Your task to perform on an android device: turn on javascript in the chrome app Image 0: 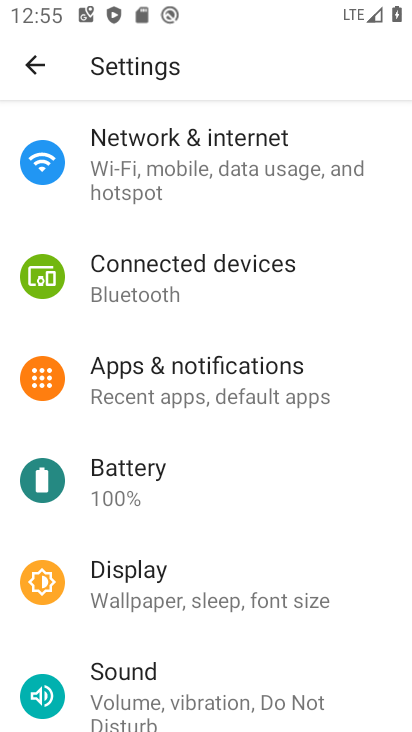
Step 0: press back button
Your task to perform on an android device: turn on javascript in the chrome app Image 1: 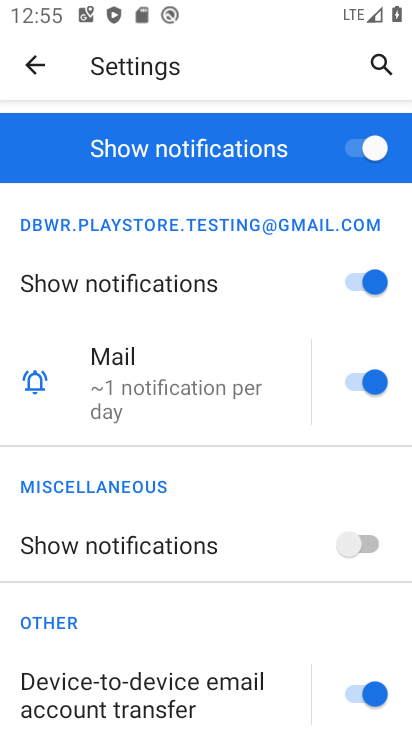
Step 1: press home button
Your task to perform on an android device: turn on javascript in the chrome app Image 2: 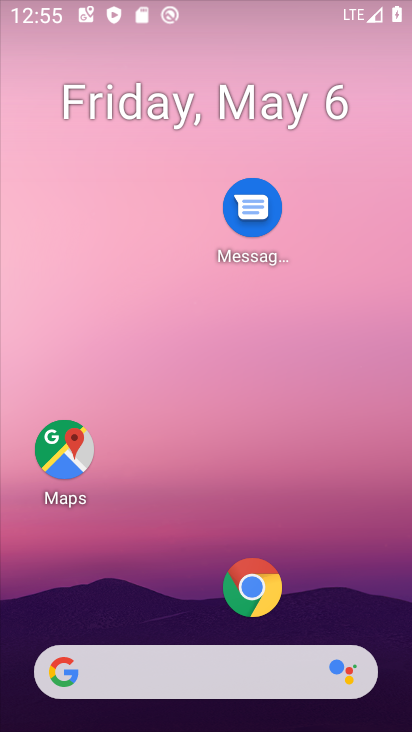
Step 2: drag from (106, 615) to (135, 685)
Your task to perform on an android device: turn on javascript in the chrome app Image 3: 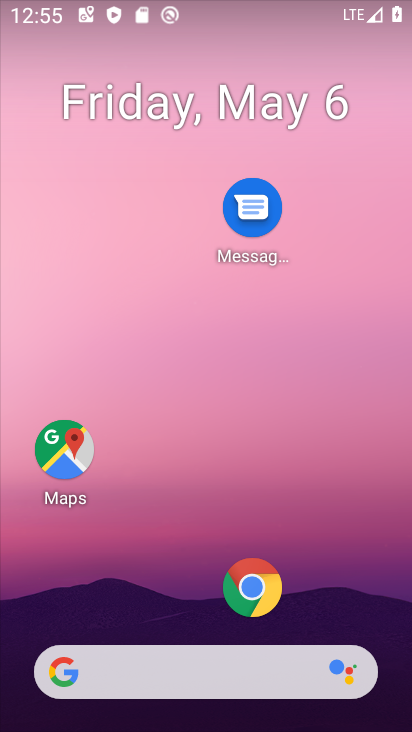
Step 3: click (255, 580)
Your task to perform on an android device: turn on javascript in the chrome app Image 4: 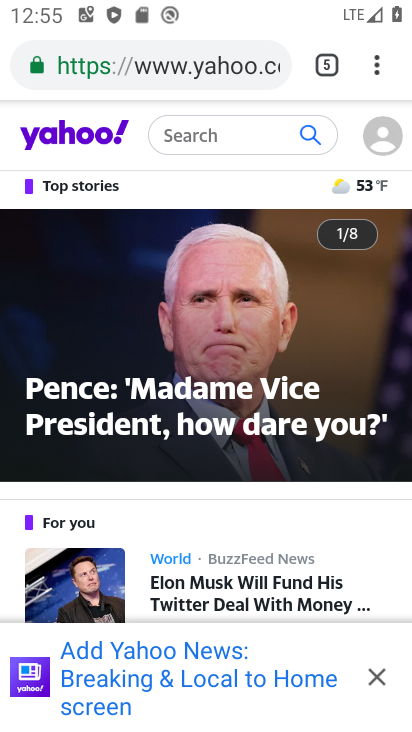
Step 4: drag from (378, 66) to (163, 625)
Your task to perform on an android device: turn on javascript in the chrome app Image 5: 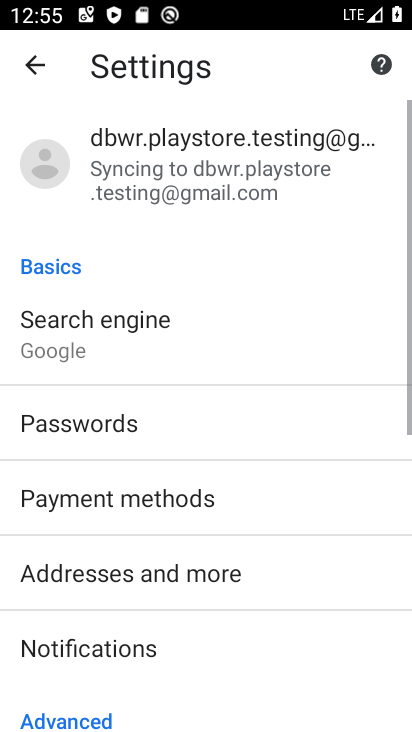
Step 5: drag from (164, 614) to (283, 61)
Your task to perform on an android device: turn on javascript in the chrome app Image 6: 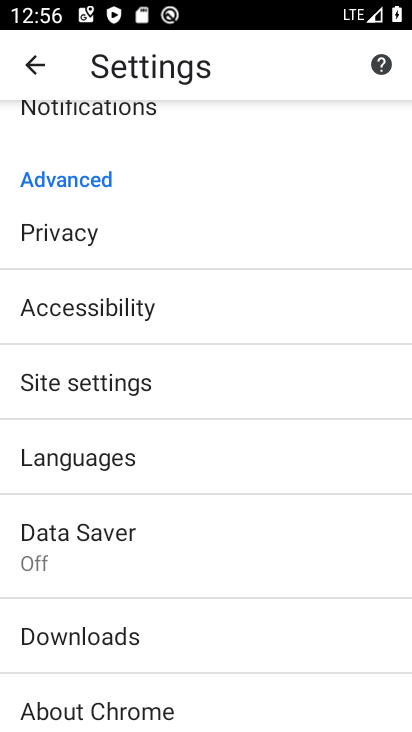
Step 6: click (98, 381)
Your task to perform on an android device: turn on javascript in the chrome app Image 7: 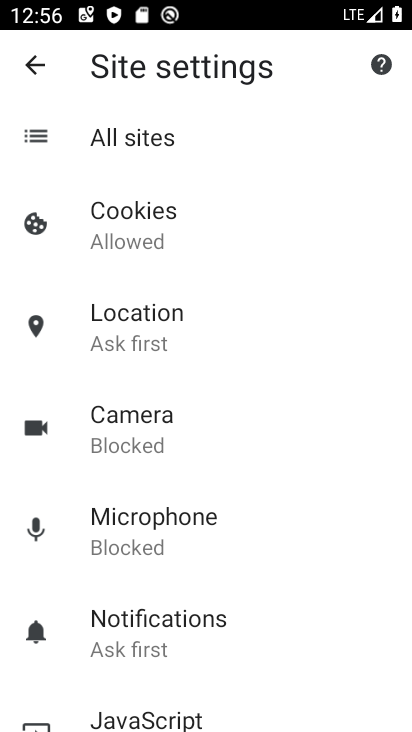
Step 7: click (148, 711)
Your task to perform on an android device: turn on javascript in the chrome app Image 8: 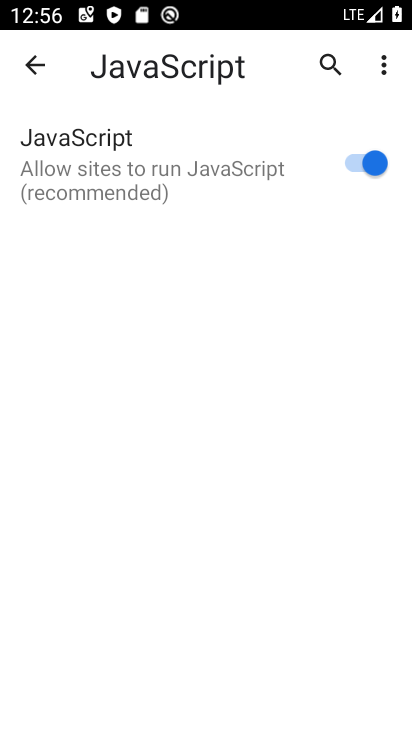
Step 8: task complete